Your task to perform on an android device: What's on my calendar tomorrow? Image 0: 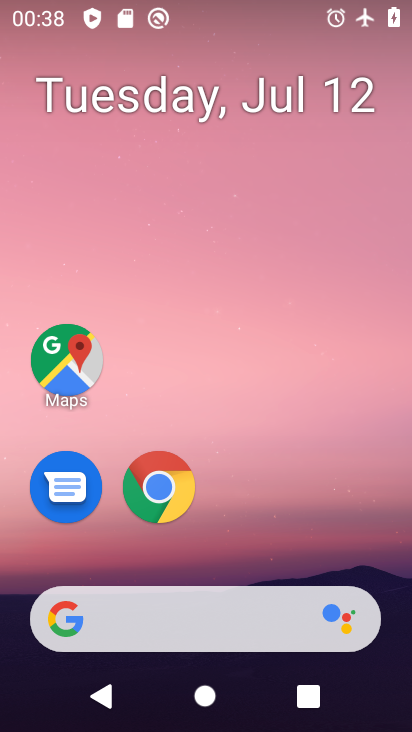
Step 0: drag from (325, 511) to (344, 78)
Your task to perform on an android device: What's on my calendar tomorrow? Image 1: 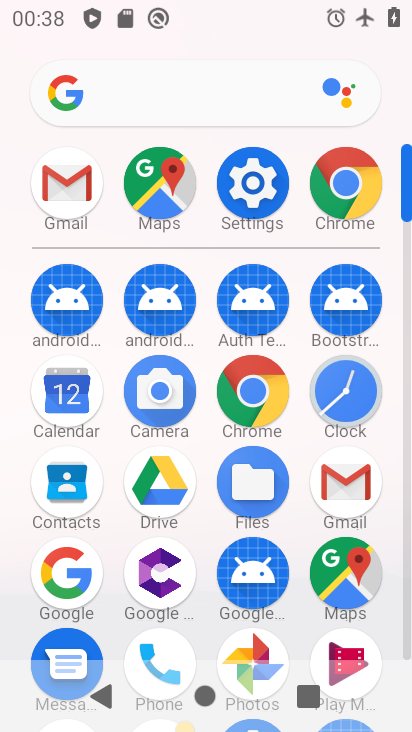
Step 1: click (55, 404)
Your task to perform on an android device: What's on my calendar tomorrow? Image 2: 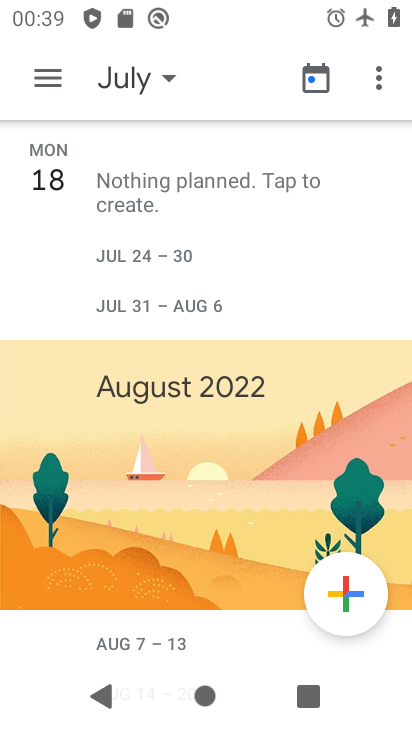
Step 2: click (166, 83)
Your task to perform on an android device: What's on my calendar tomorrow? Image 3: 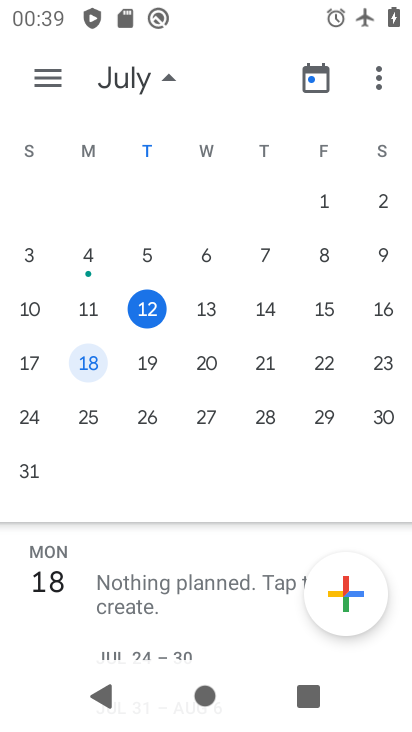
Step 3: click (214, 321)
Your task to perform on an android device: What's on my calendar tomorrow? Image 4: 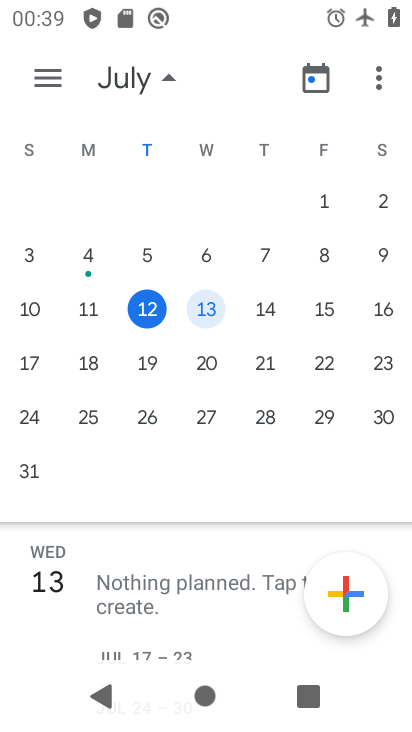
Step 4: task complete